Your task to perform on an android device: turn smart compose on in the gmail app Image 0: 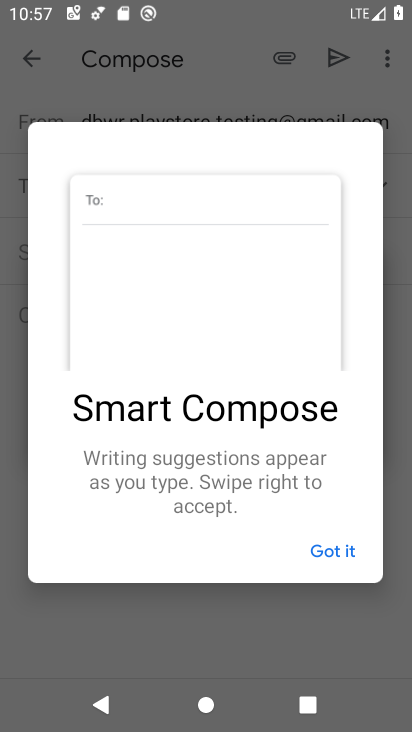
Step 0: press home button
Your task to perform on an android device: turn smart compose on in the gmail app Image 1: 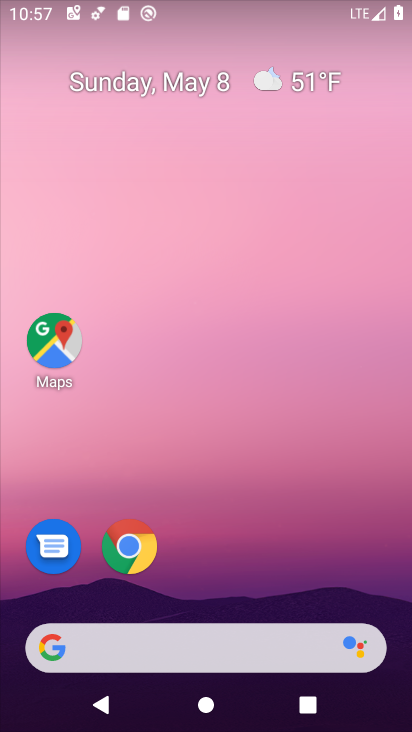
Step 1: drag from (347, 604) to (343, 27)
Your task to perform on an android device: turn smart compose on in the gmail app Image 2: 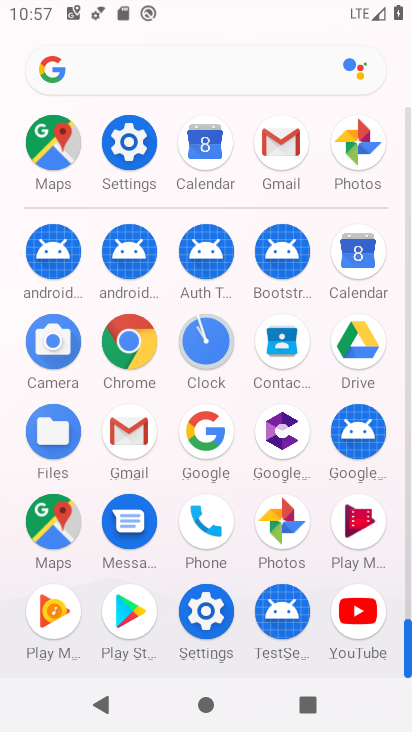
Step 2: click (125, 431)
Your task to perform on an android device: turn smart compose on in the gmail app Image 3: 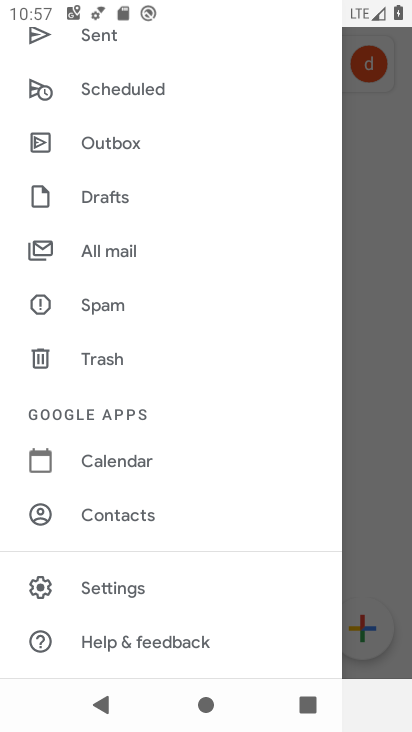
Step 3: click (126, 578)
Your task to perform on an android device: turn smart compose on in the gmail app Image 4: 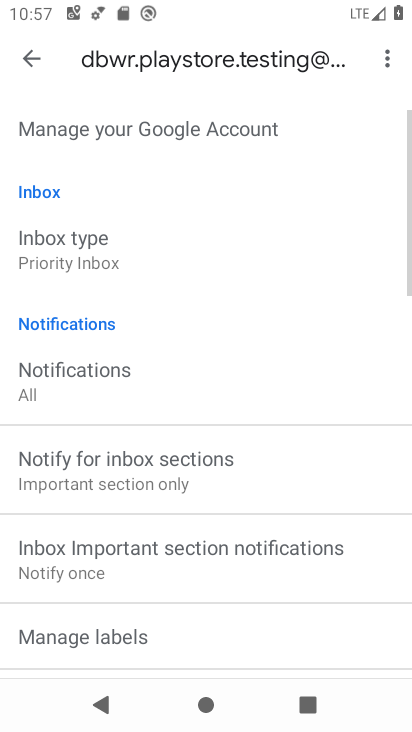
Step 4: task complete